Your task to perform on an android device: turn off smart reply in the gmail app Image 0: 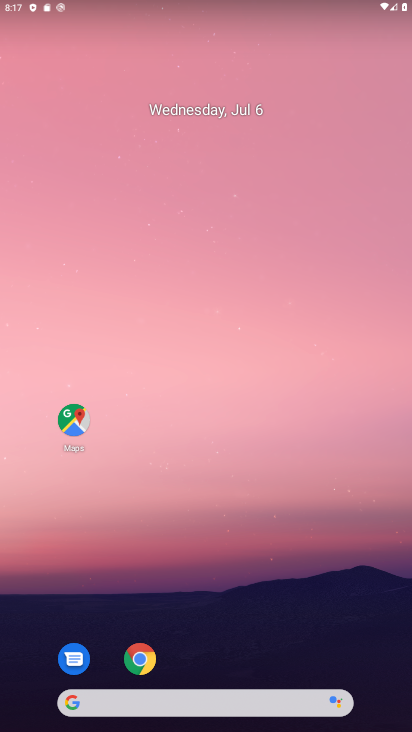
Step 0: press home button
Your task to perform on an android device: turn off smart reply in the gmail app Image 1: 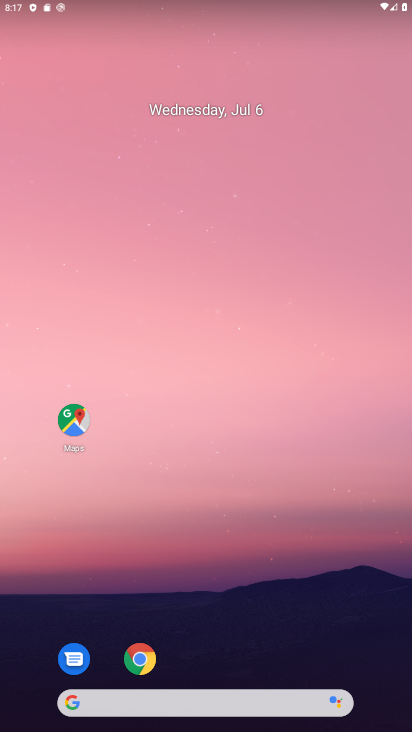
Step 1: drag from (240, 697) to (290, 111)
Your task to perform on an android device: turn off smart reply in the gmail app Image 2: 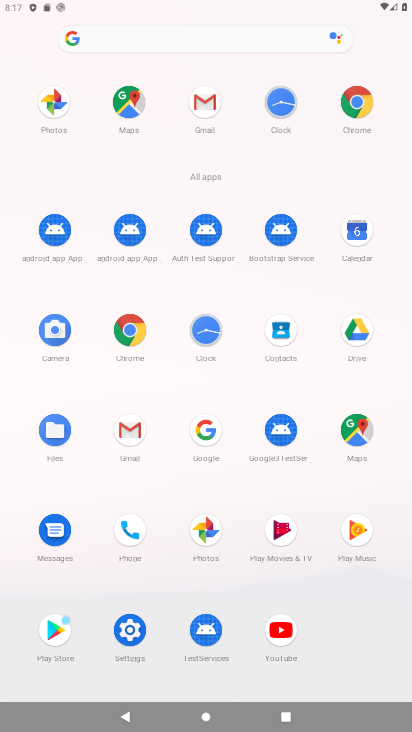
Step 2: click (130, 432)
Your task to perform on an android device: turn off smart reply in the gmail app Image 3: 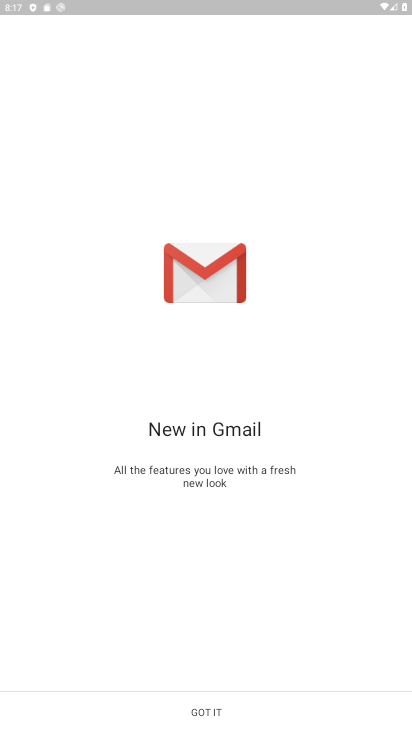
Step 3: click (316, 712)
Your task to perform on an android device: turn off smart reply in the gmail app Image 4: 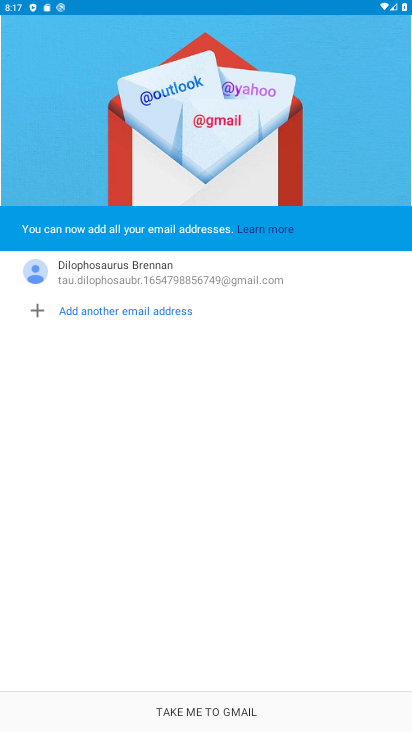
Step 4: click (316, 712)
Your task to perform on an android device: turn off smart reply in the gmail app Image 5: 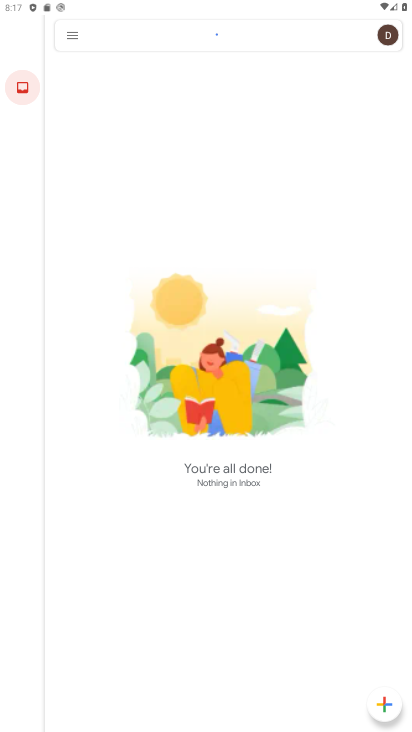
Step 5: click (69, 38)
Your task to perform on an android device: turn off smart reply in the gmail app Image 6: 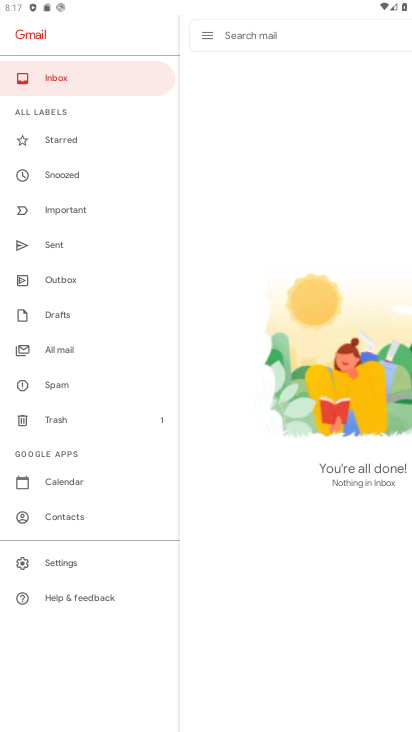
Step 6: click (72, 557)
Your task to perform on an android device: turn off smart reply in the gmail app Image 7: 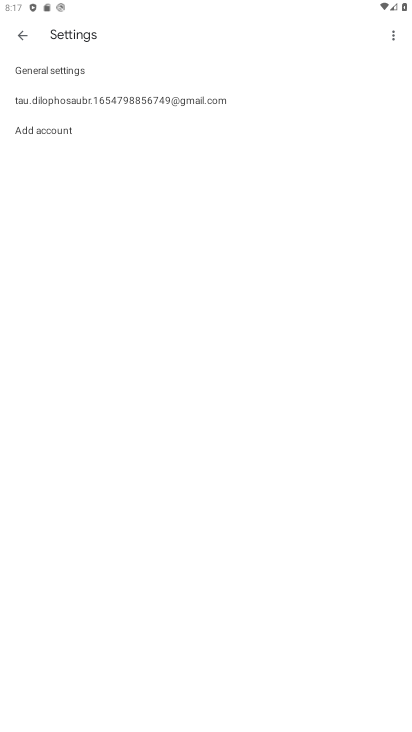
Step 7: click (150, 95)
Your task to perform on an android device: turn off smart reply in the gmail app Image 8: 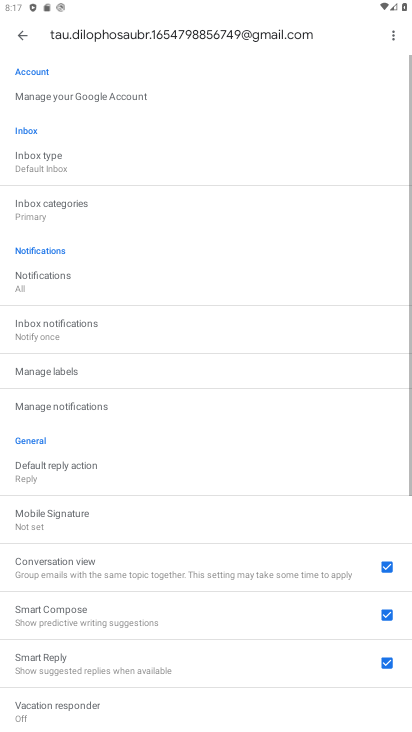
Step 8: drag from (207, 624) to (239, 417)
Your task to perform on an android device: turn off smart reply in the gmail app Image 9: 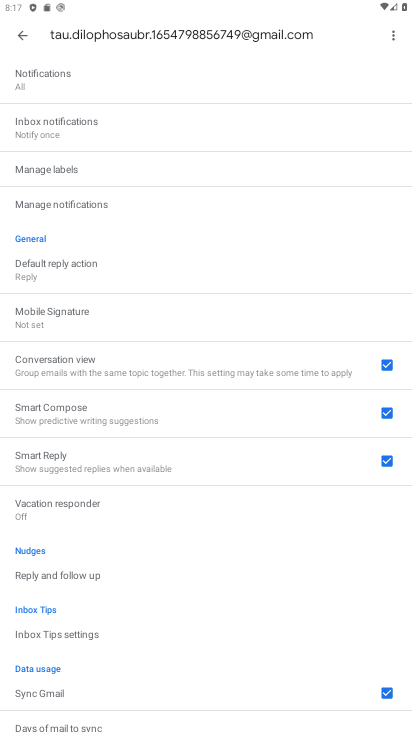
Step 9: click (125, 464)
Your task to perform on an android device: turn off smart reply in the gmail app Image 10: 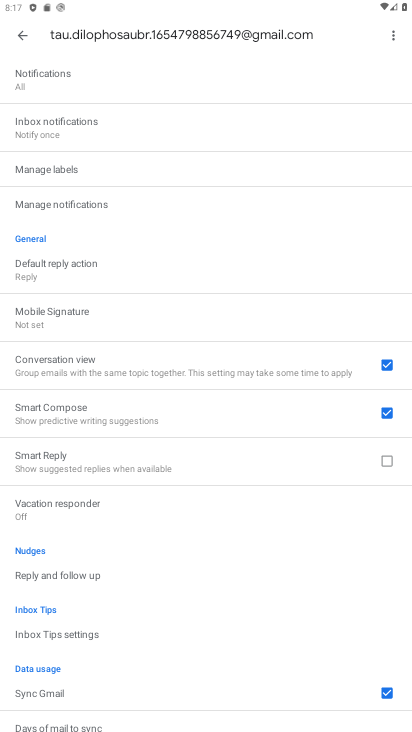
Step 10: task complete